Your task to perform on an android device: Show me popular games on the Play Store Image 0: 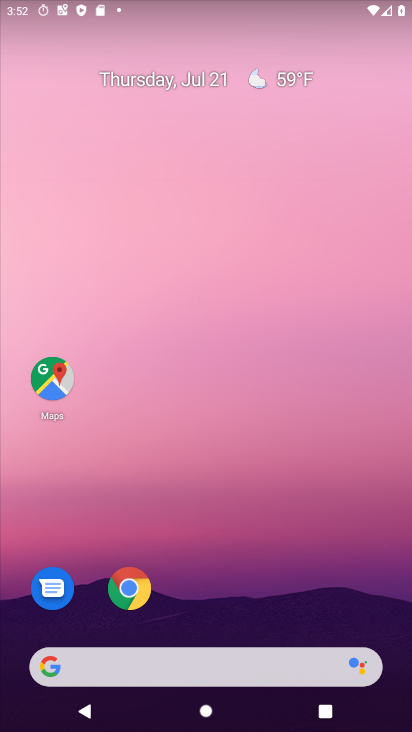
Step 0: drag from (214, 560) to (200, 139)
Your task to perform on an android device: Show me popular games on the Play Store Image 1: 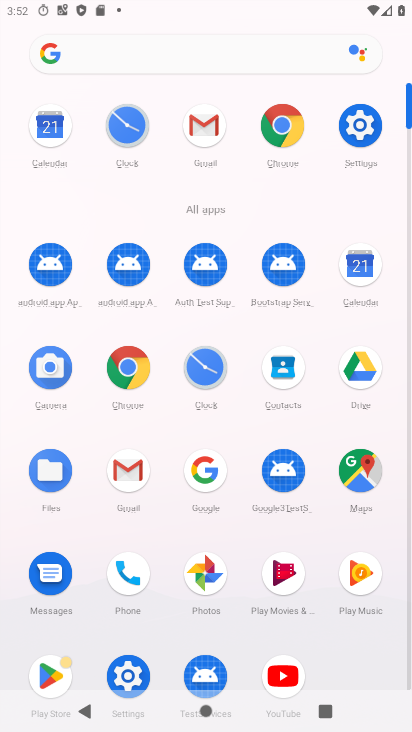
Step 1: click (58, 667)
Your task to perform on an android device: Show me popular games on the Play Store Image 2: 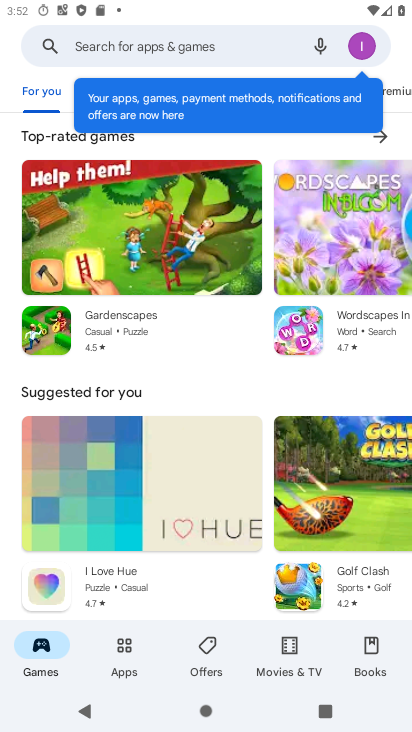
Step 2: drag from (45, 98) to (0, 97)
Your task to perform on an android device: Show me popular games on the Play Store Image 3: 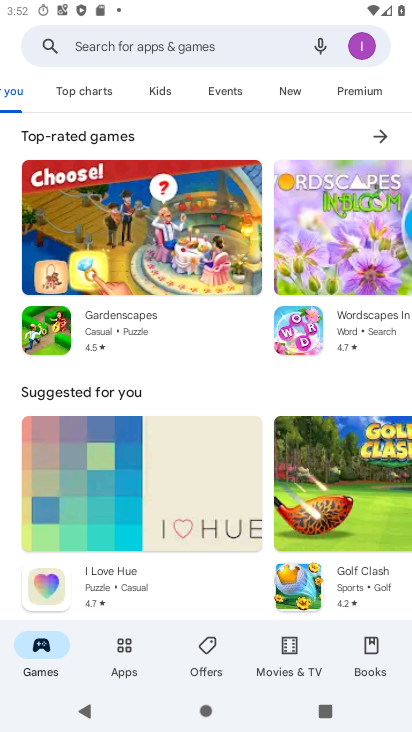
Step 3: click (87, 91)
Your task to perform on an android device: Show me popular games on the Play Store Image 4: 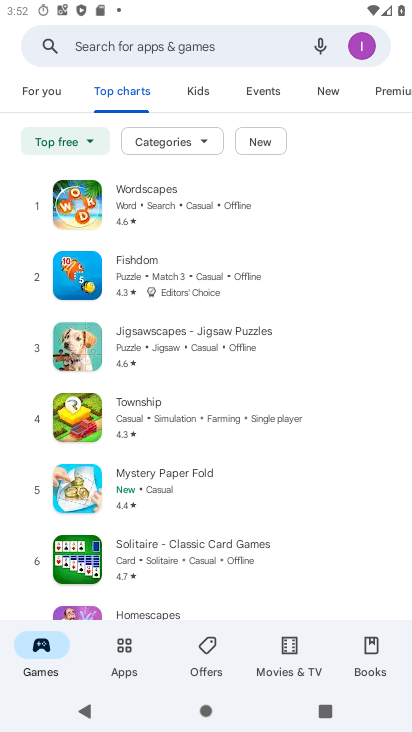
Step 4: task complete